Your task to perform on an android device: turn notification dots off Image 0: 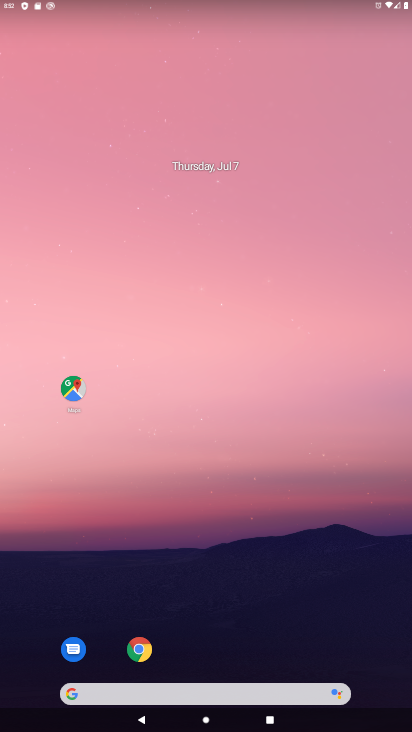
Step 0: drag from (146, 695) to (185, 26)
Your task to perform on an android device: turn notification dots off Image 1: 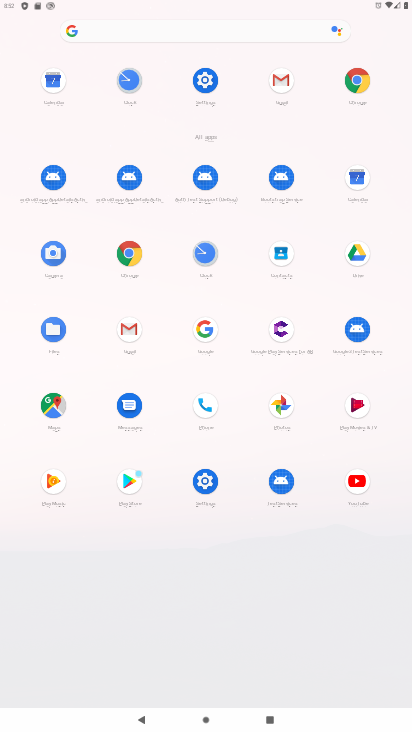
Step 1: click (201, 84)
Your task to perform on an android device: turn notification dots off Image 2: 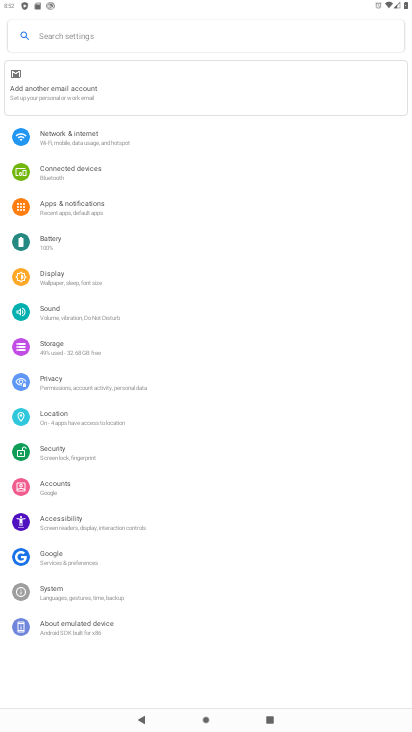
Step 2: click (67, 212)
Your task to perform on an android device: turn notification dots off Image 3: 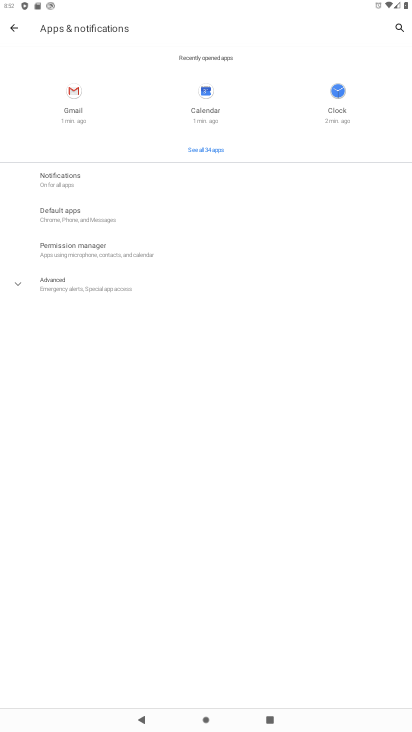
Step 3: click (64, 180)
Your task to perform on an android device: turn notification dots off Image 4: 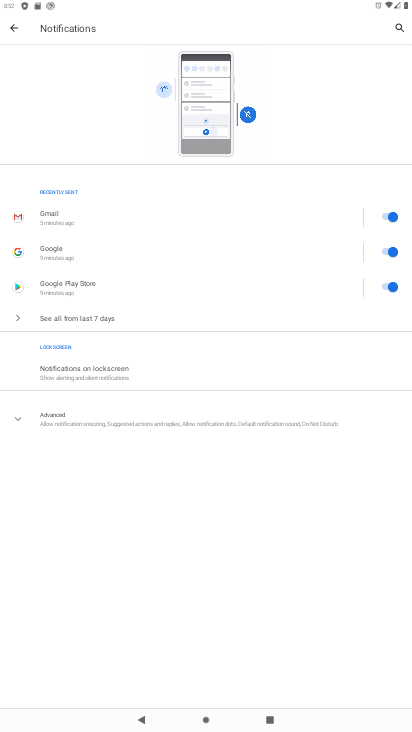
Step 4: click (93, 416)
Your task to perform on an android device: turn notification dots off Image 5: 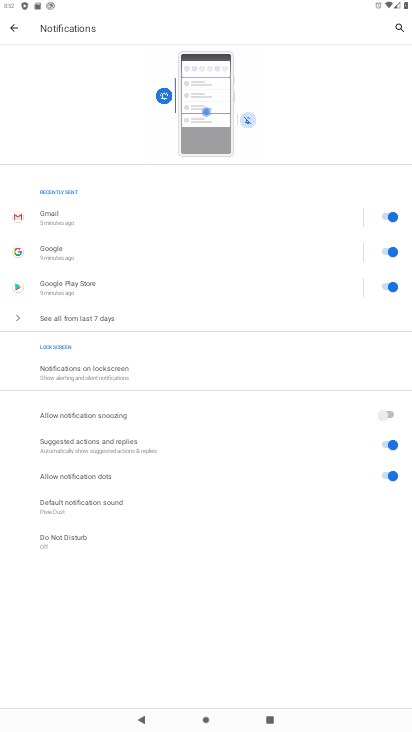
Step 5: click (386, 476)
Your task to perform on an android device: turn notification dots off Image 6: 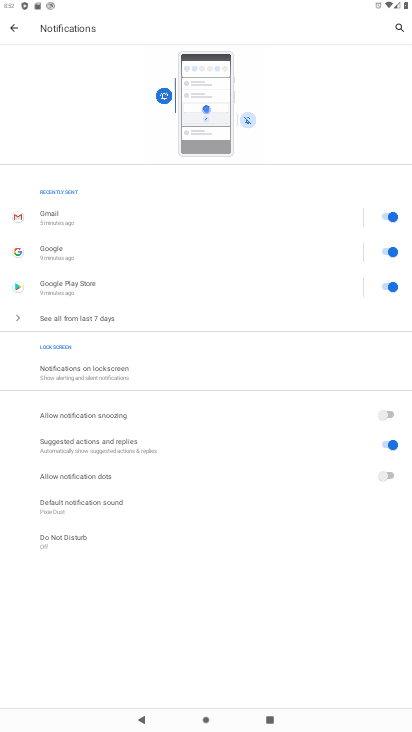
Step 6: task complete